Your task to perform on an android device: Open privacy settings Image 0: 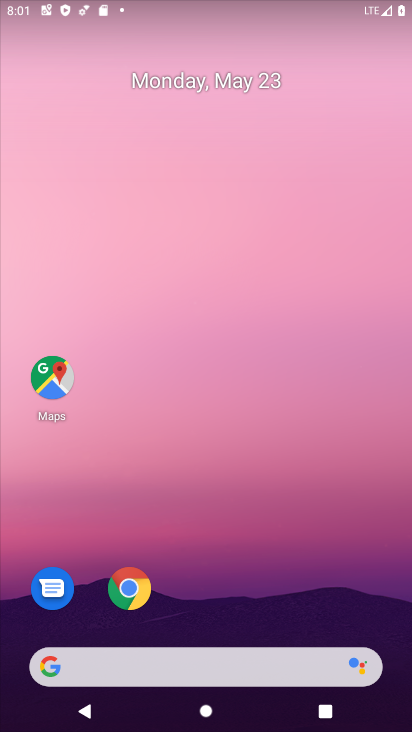
Step 0: click (51, 376)
Your task to perform on an android device: Open privacy settings Image 1: 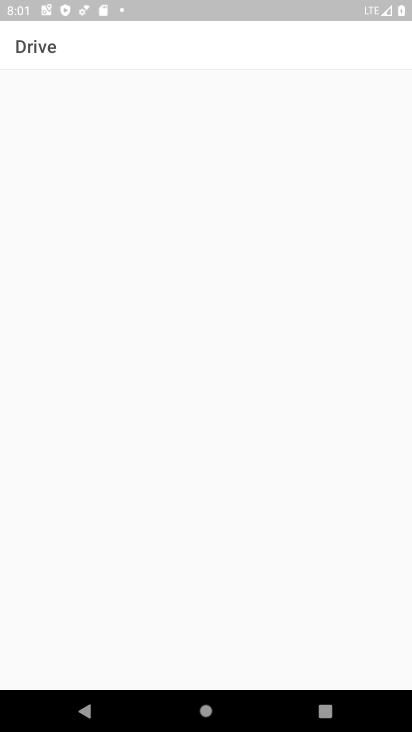
Step 1: click (128, 586)
Your task to perform on an android device: Open privacy settings Image 2: 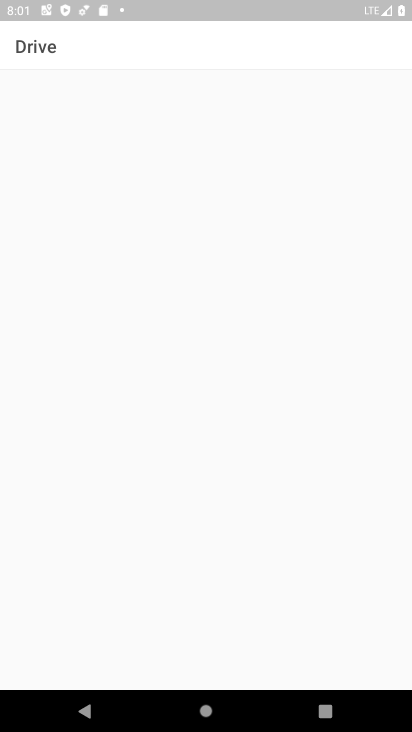
Step 2: press home button
Your task to perform on an android device: Open privacy settings Image 3: 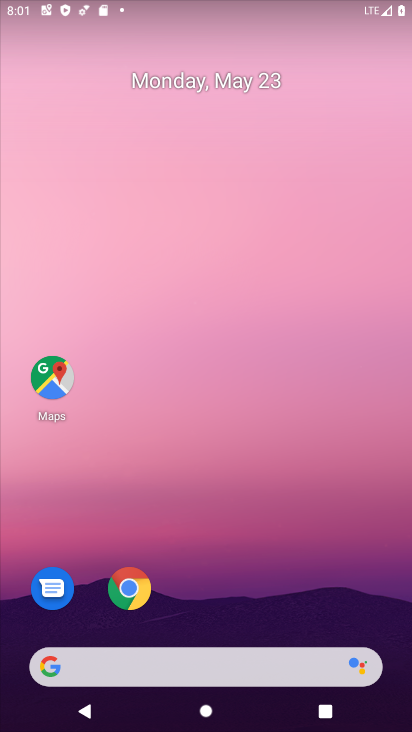
Step 3: click (119, 589)
Your task to perform on an android device: Open privacy settings Image 4: 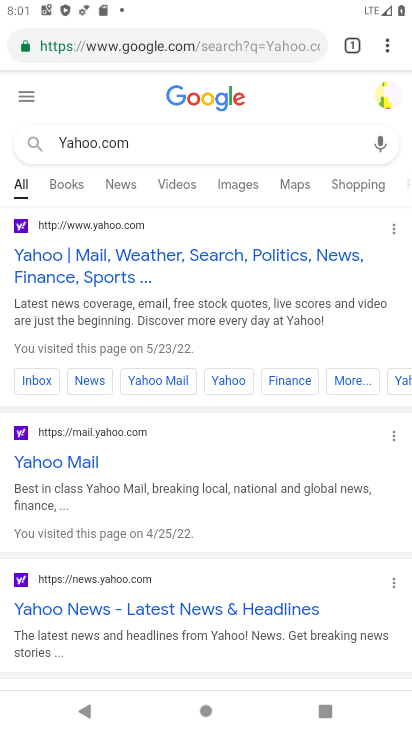
Step 4: click (385, 42)
Your task to perform on an android device: Open privacy settings Image 5: 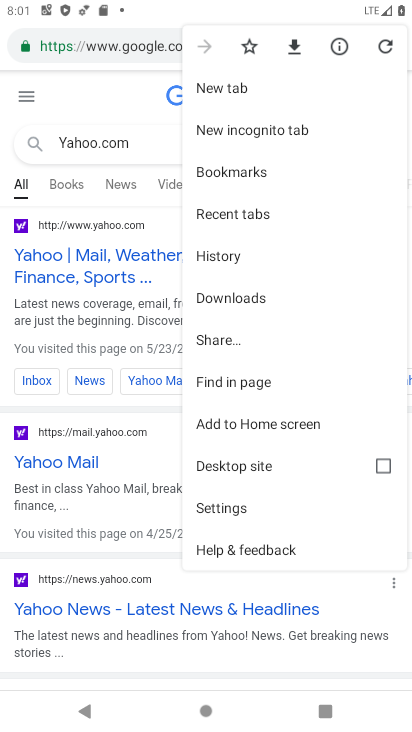
Step 5: click (227, 509)
Your task to perform on an android device: Open privacy settings Image 6: 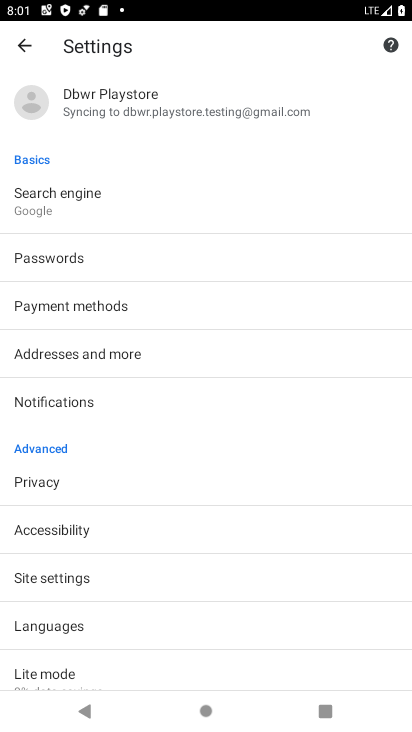
Step 6: click (35, 478)
Your task to perform on an android device: Open privacy settings Image 7: 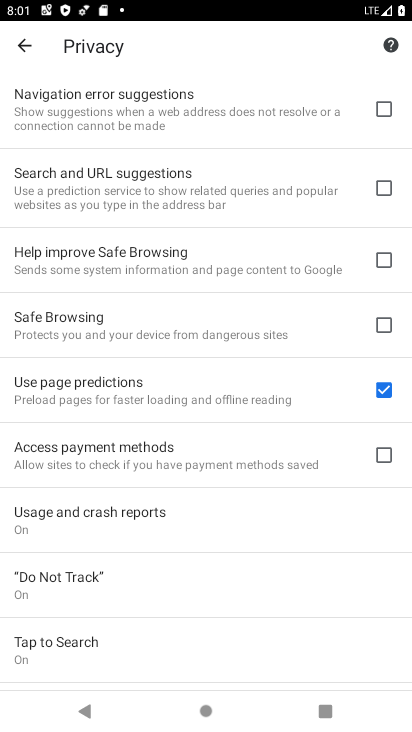
Step 7: task complete